Your task to perform on an android device: Check the news Image 0: 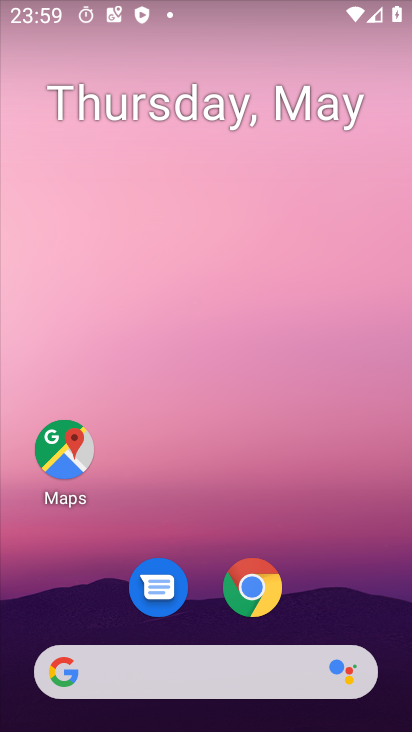
Step 0: click (117, 673)
Your task to perform on an android device: Check the news Image 1: 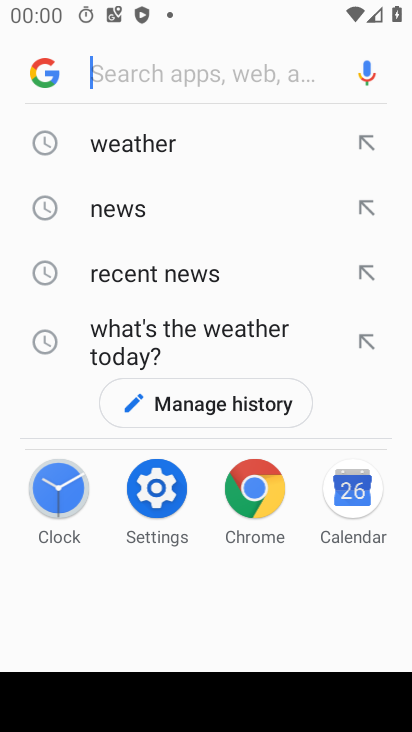
Step 1: click (117, 212)
Your task to perform on an android device: Check the news Image 2: 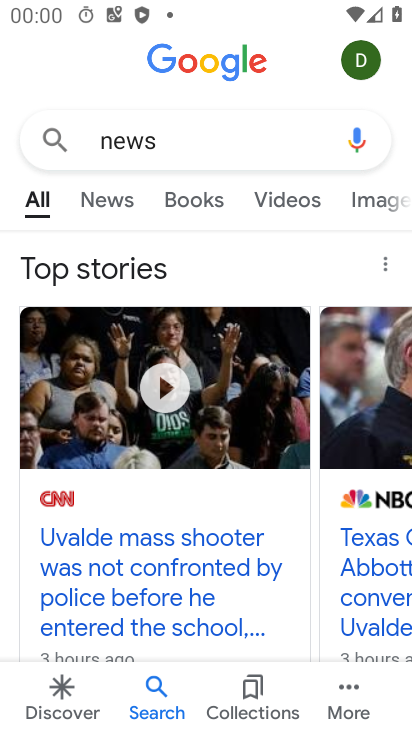
Step 2: click (115, 202)
Your task to perform on an android device: Check the news Image 3: 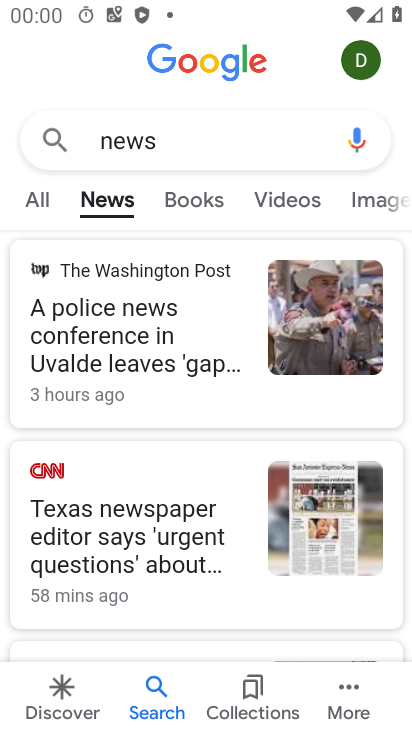
Step 3: task complete